Your task to perform on an android device: Check the weather Image 0: 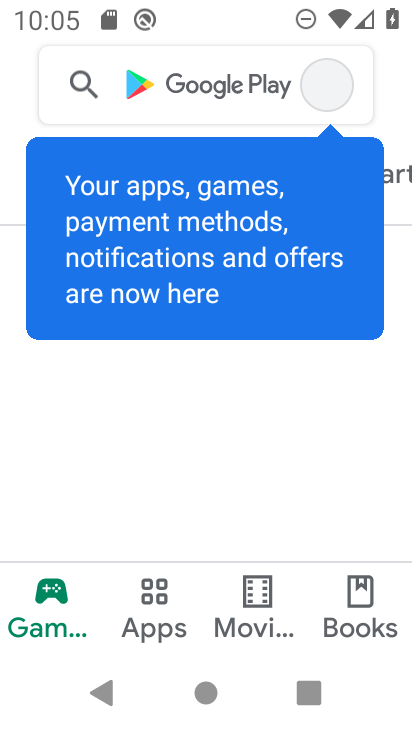
Step 0: press home button
Your task to perform on an android device: Check the weather Image 1: 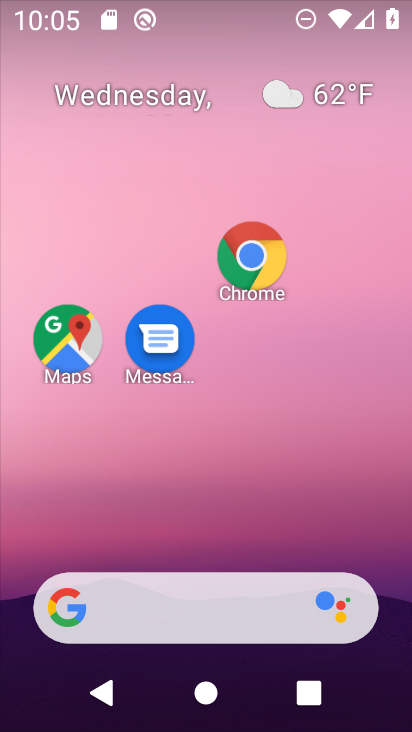
Step 1: drag from (201, 484) to (158, 71)
Your task to perform on an android device: Check the weather Image 2: 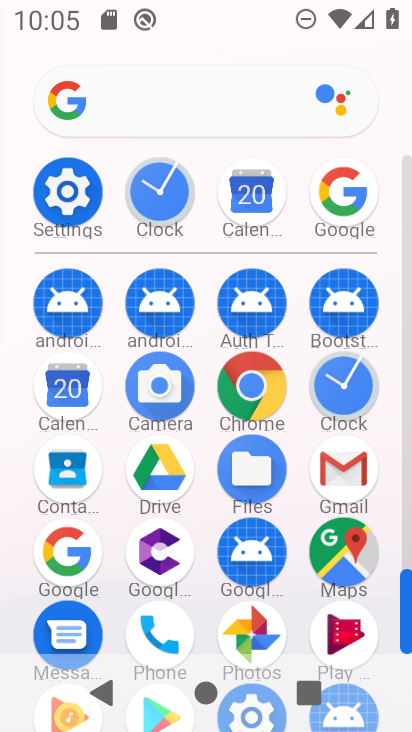
Step 2: click (346, 186)
Your task to perform on an android device: Check the weather Image 3: 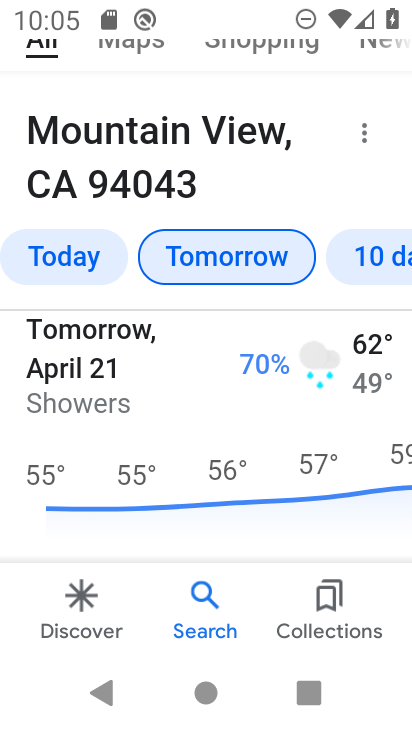
Step 3: drag from (266, 162) to (257, 493)
Your task to perform on an android device: Check the weather Image 4: 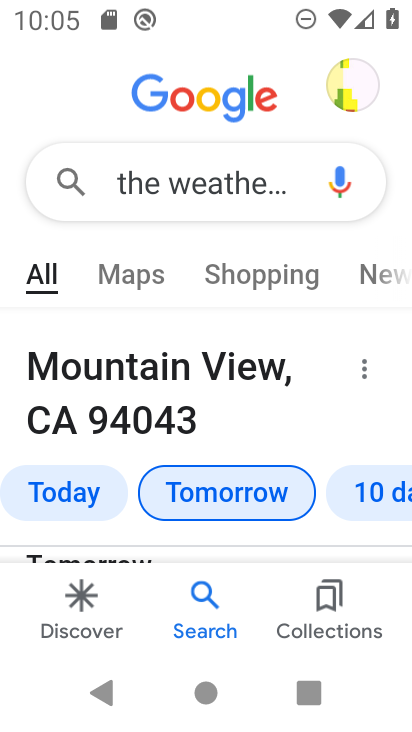
Step 4: click (273, 198)
Your task to perform on an android device: Check the weather Image 5: 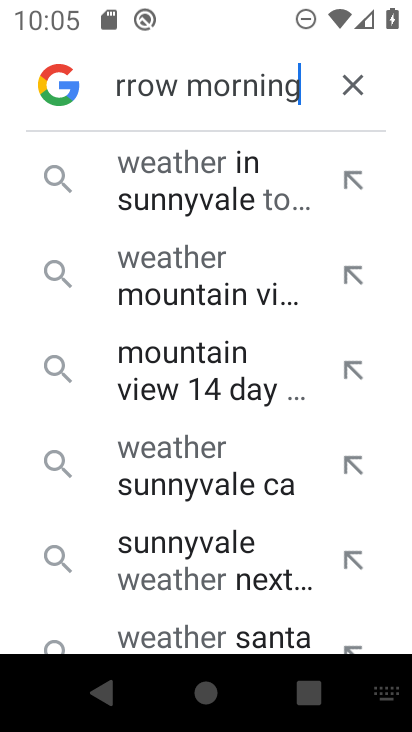
Step 5: click (348, 80)
Your task to perform on an android device: Check the weather Image 6: 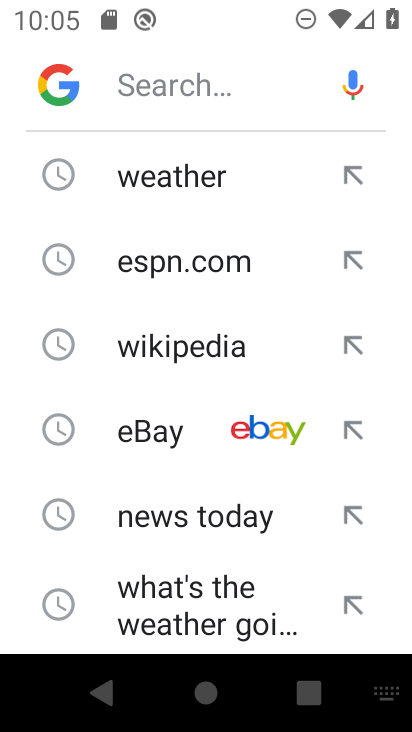
Step 6: click (197, 188)
Your task to perform on an android device: Check the weather Image 7: 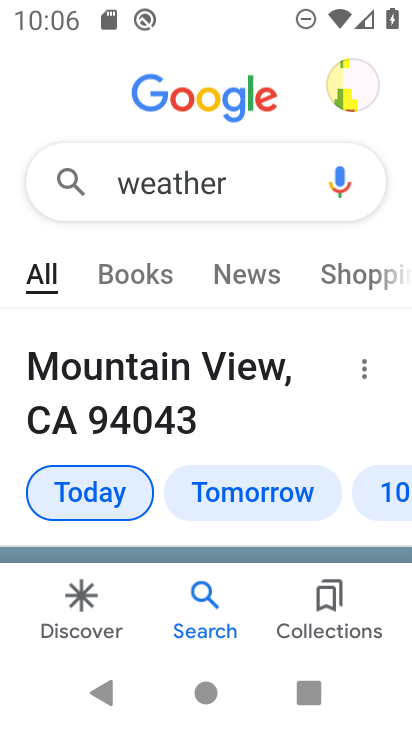
Step 7: task complete